Your task to perform on an android device: open app "Pluto TV - Live TV and Movies" (install if not already installed) Image 0: 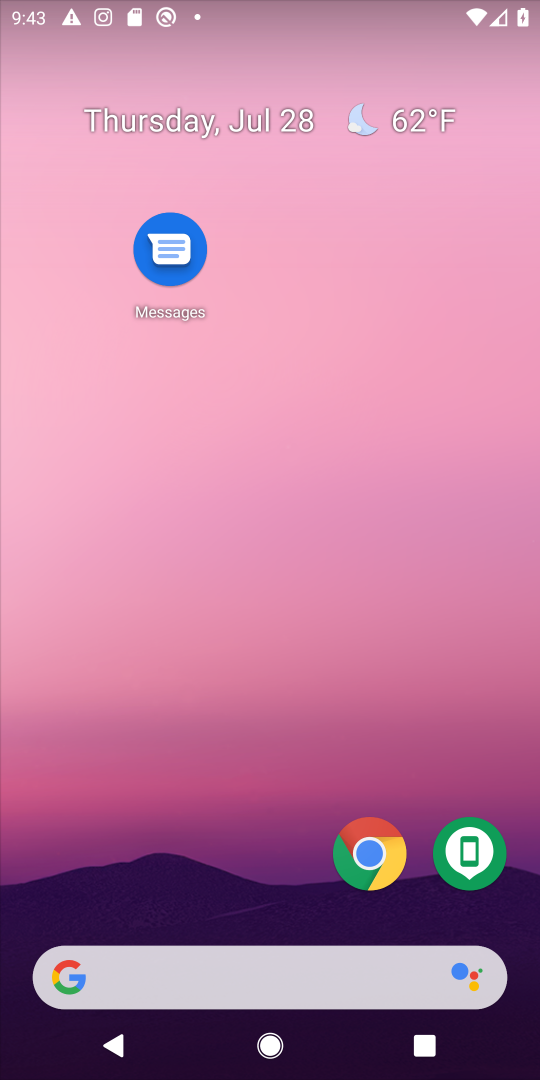
Step 0: drag from (214, 592) to (214, 289)
Your task to perform on an android device: open app "Pluto TV - Live TV and Movies" (install if not already installed) Image 1: 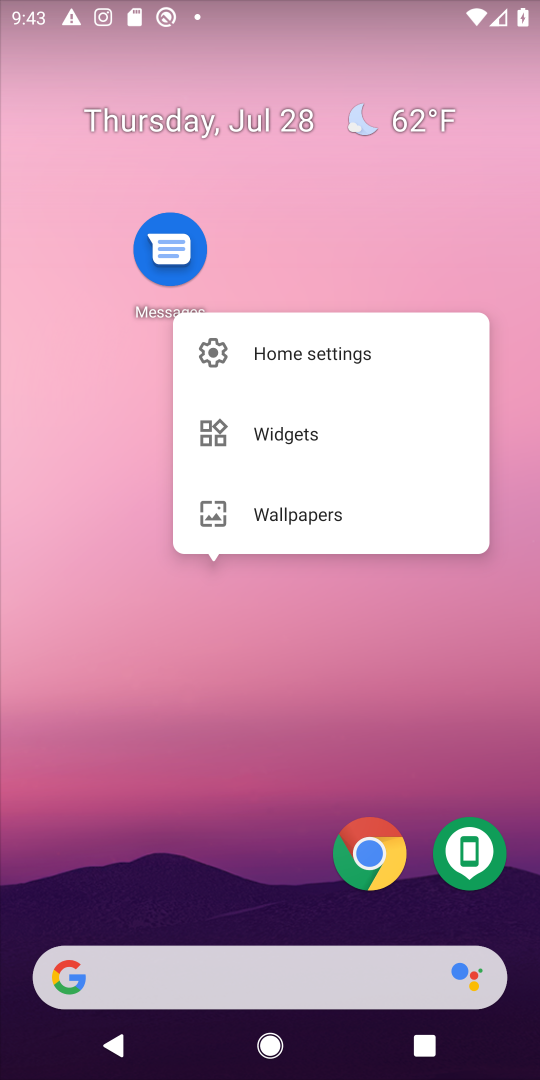
Step 1: click (201, 889)
Your task to perform on an android device: open app "Pluto TV - Live TV and Movies" (install if not already installed) Image 2: 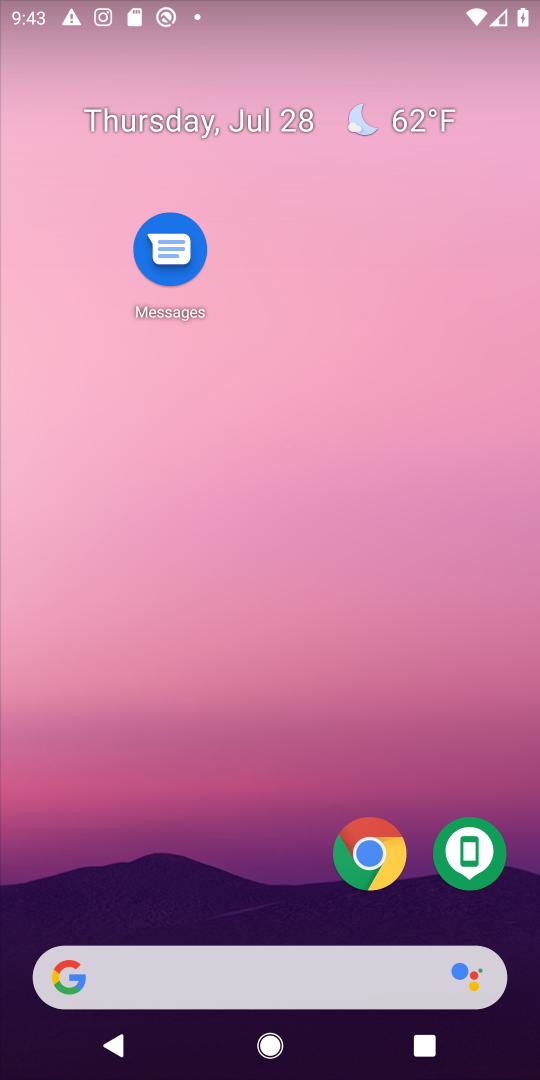
Step 2: drag from (201, 583) to (190, 297)
Your task to perform on an android device: open app "Pluto TV - Live TV and Movies" (install if not already installed) Image 3: 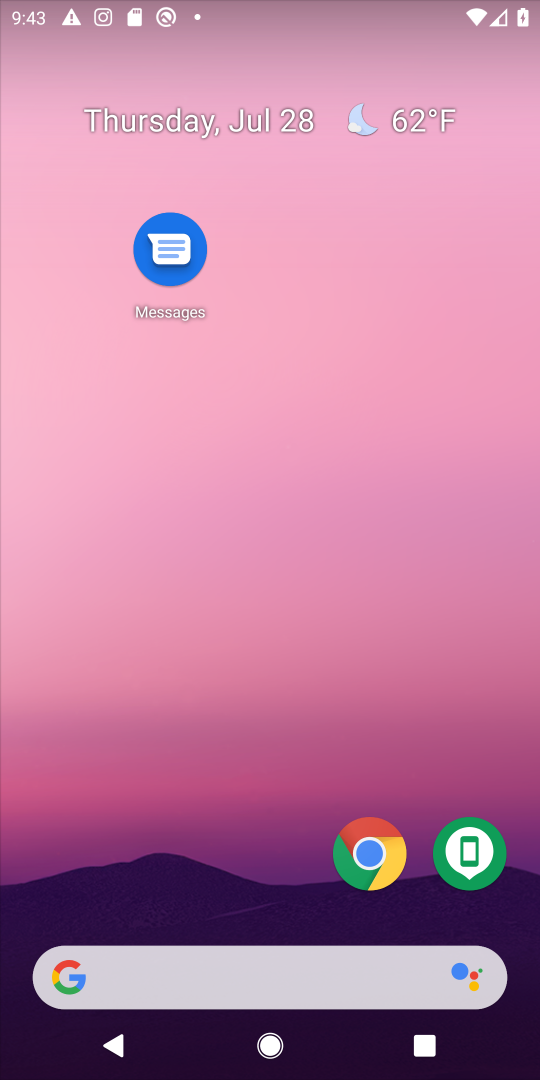
Step 3: drag from (246, 736) to (237, 135)
Your task to perform on an android device: open app "Pluto TV - Live TV and Movies" (install if not already installed) Image 4: 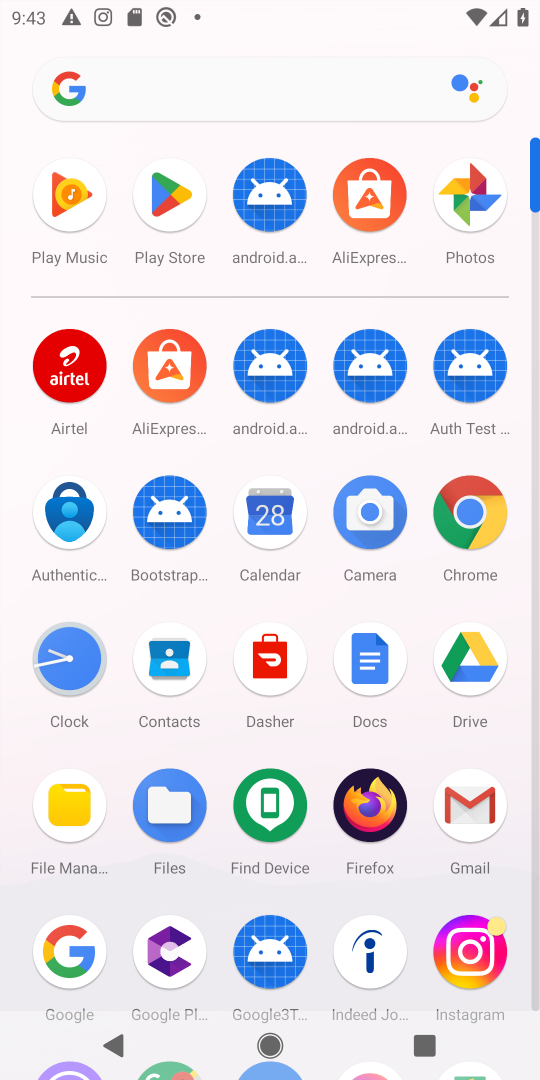
Step 4: click (168, 198)
Your task to perform on an android device: open app "Pluto TV - Live TV and Movies" (install if not already installed) Image 5: 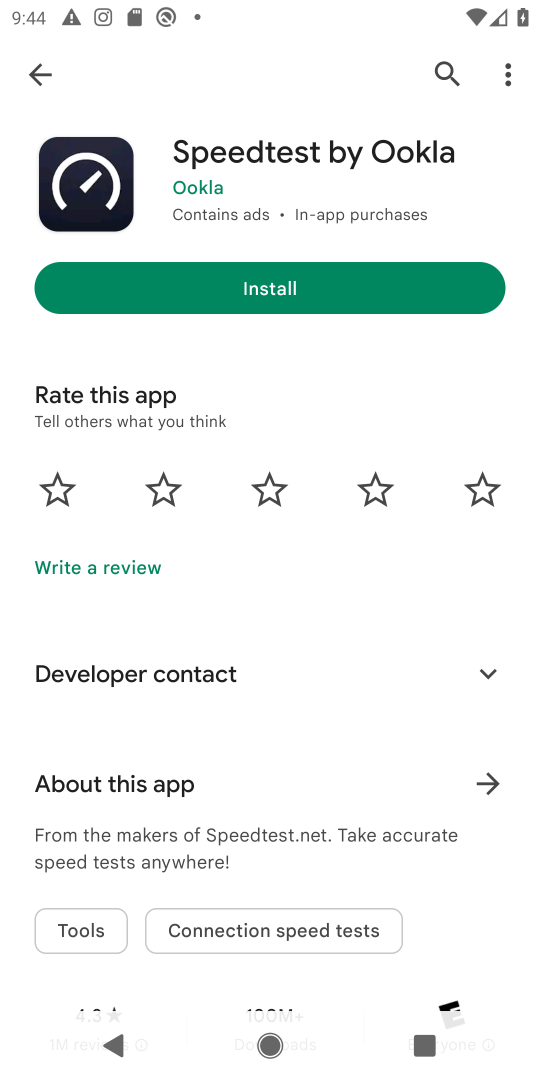
Step 5: click (46, 71)
Your task to perform on an android device: open app "Pluto TV - Live TV and Movies" (install if not already installed) Image 6: 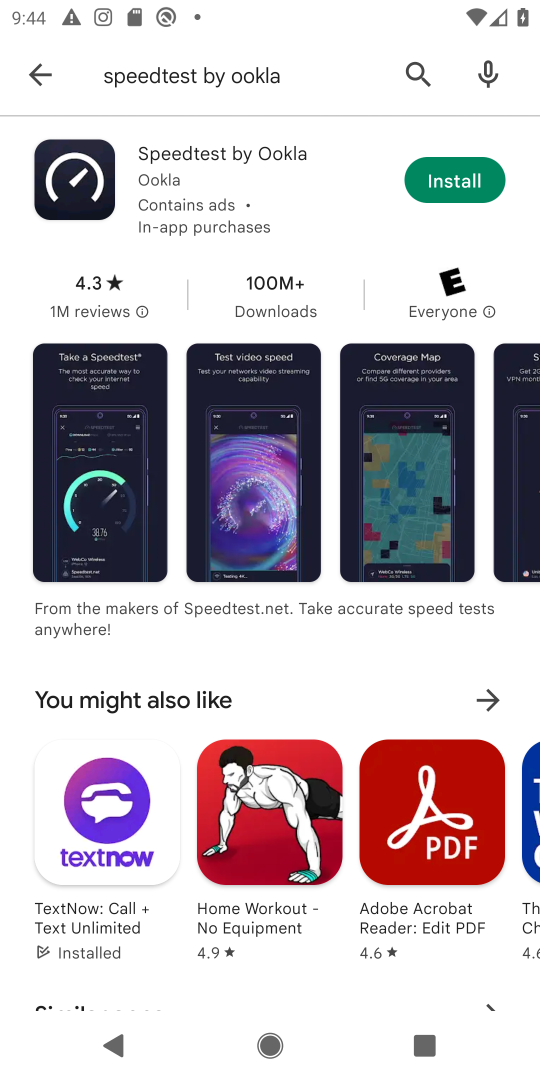
Step 6: click (46, 71)
Your task to perform on an android device: open app "Pluto TV - Live TV and Movies" (install if not already installed) Image 7: 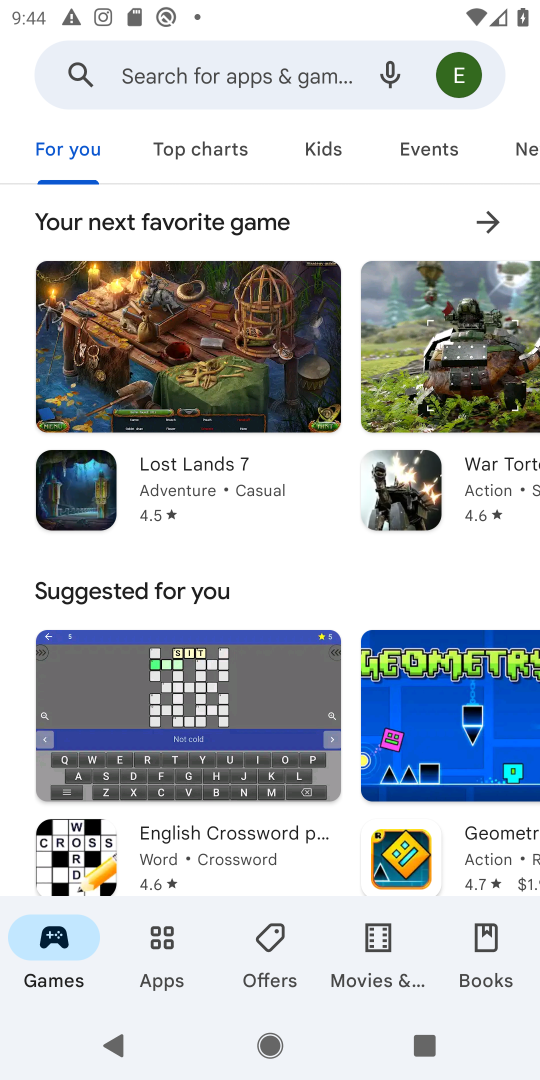
Step 7: click (116, 79)
Your task to perform on an android device: open app "Pluto TV - Live TV and Movies" (install if not already installed) Image 8: 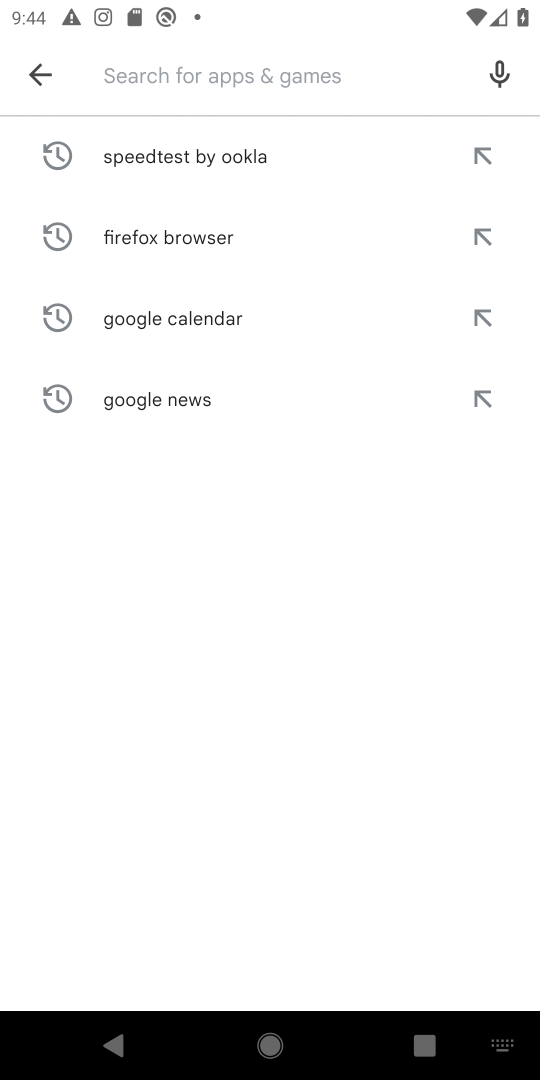
Step 8: type "Pluto TV - Live TV and Movies"
Your task to perform on an android device: open app "Pluto TV - Live TV and Movies" (install if not already installed) Image 9: 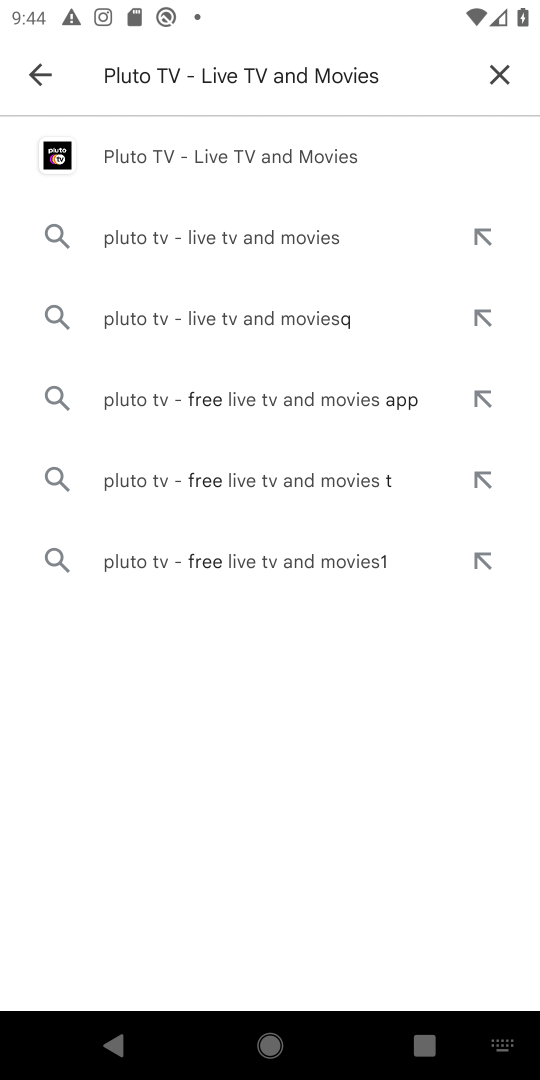
Step 9: click (304, 146)
Your task to perform on an android device: open app "Pluto TV - Live TV and Movies" (install if not already installed) Image 10: 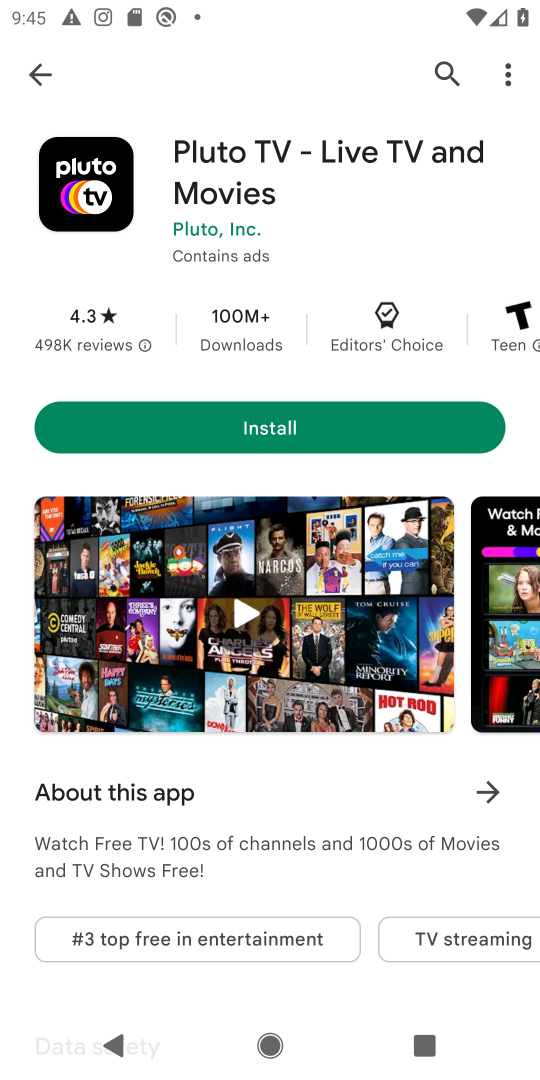
Step 10: click (215, 425)
Your task to perform on an android device: open app "Pluto TV - Live TV and Movies" (install if not already installed) Image 11: 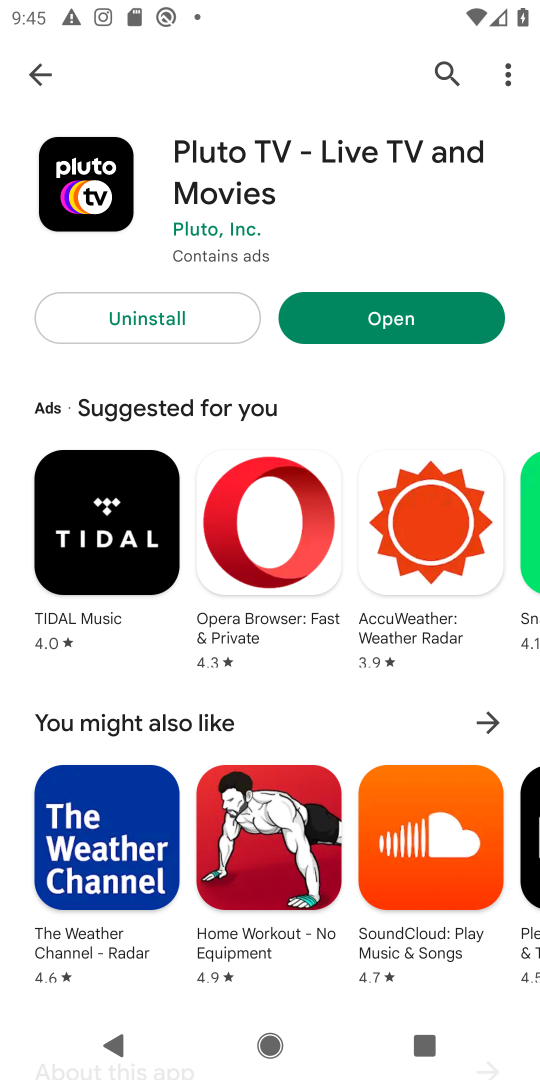
Step 11: click (414, 320)
Your task to perform on an android device: open app "Pluto TV - Live TV and Movies" (install if not already installed) Image 12: 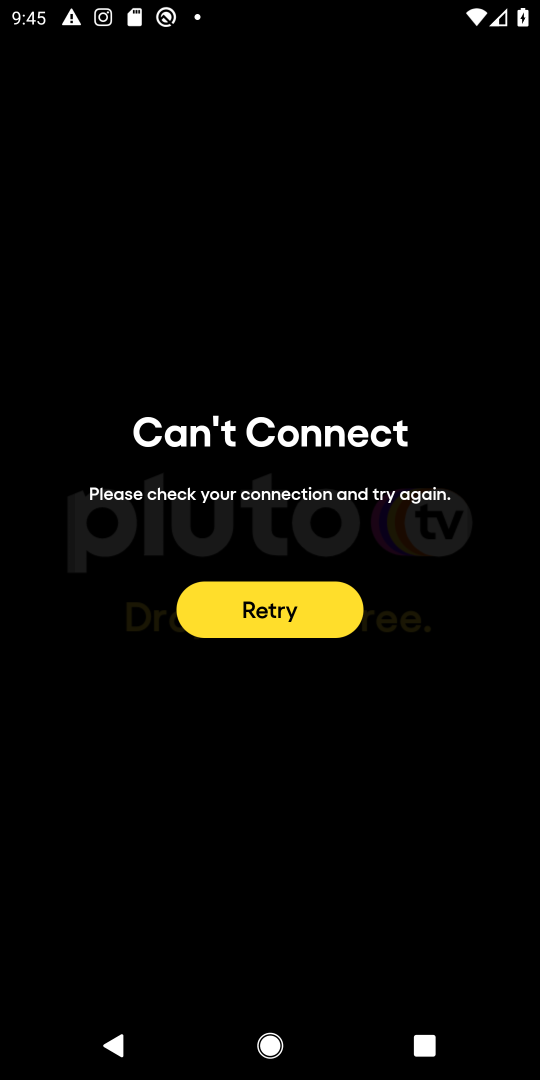
Step 12: task complete